Your task to perform on an android device: Open the web browser Image 0: 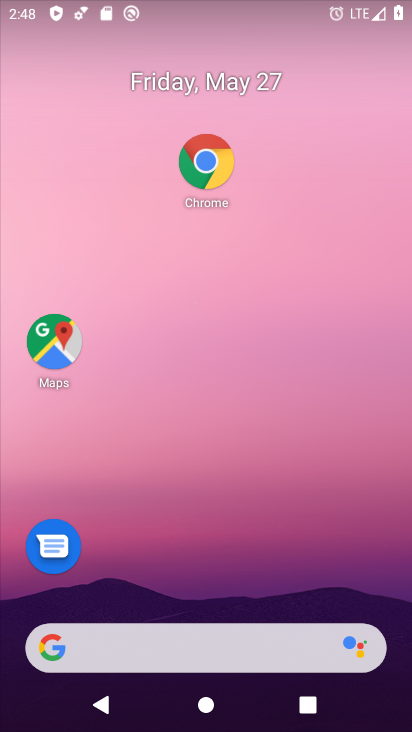
Step 0: click (208, 157)
Your task to perform on an android device: Open the web browser Image 1: 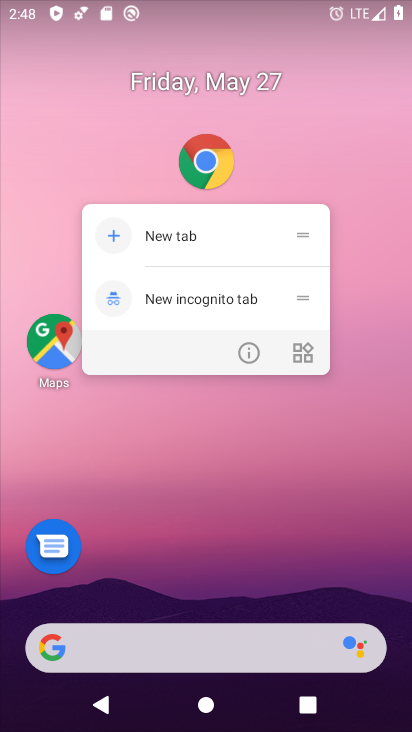
Step 1: click (208, 157)
Your task to perform on an android device: Open the web browser Image 2: 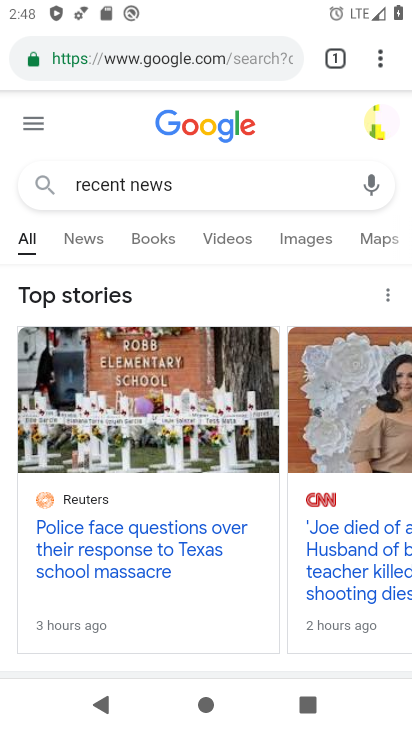
Step 2: click (112, 61)
Your task to perform on an android device: Open the web browser Image 3: 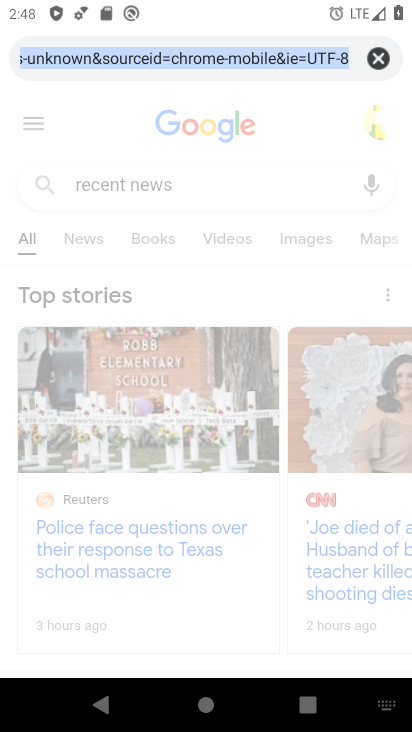
Step 3: task complete